Your task to perform on an android device: turn on javascript in the chrome app Image 0: 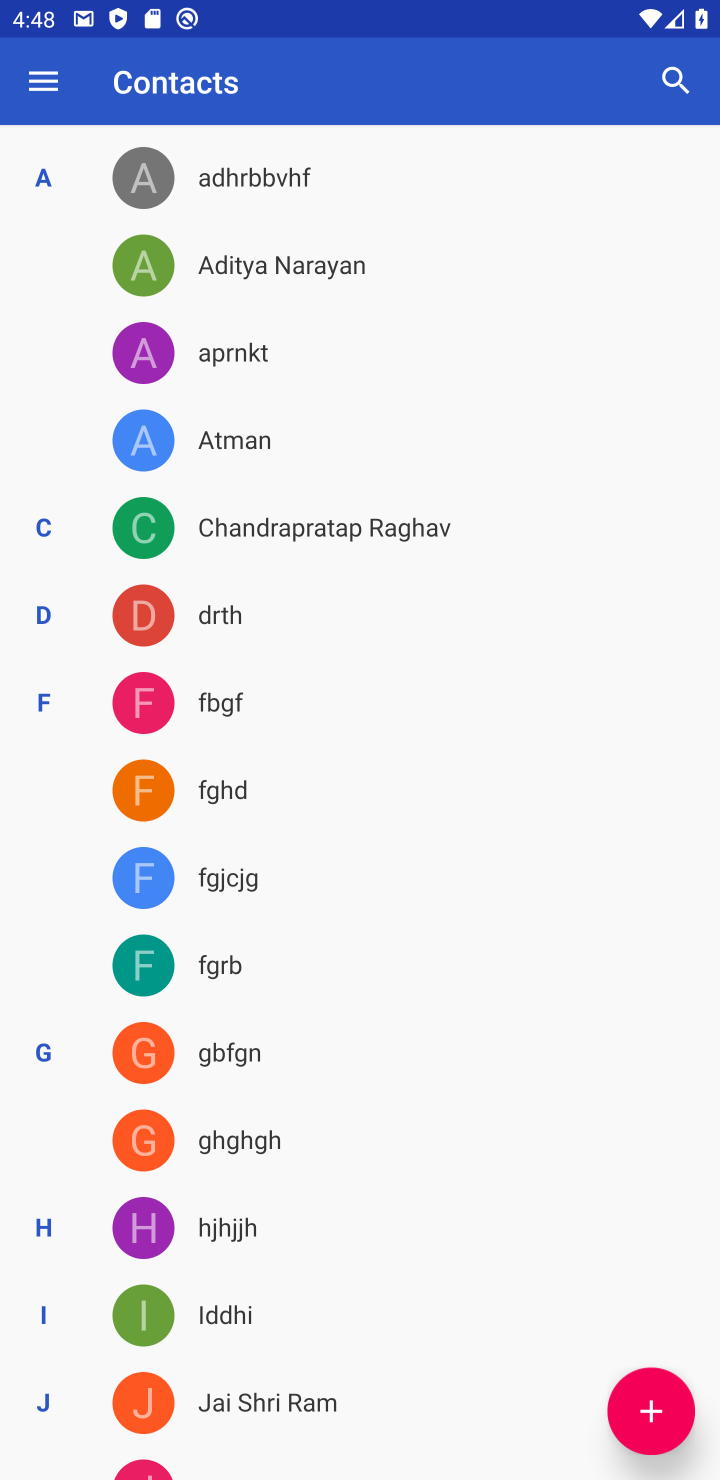
Step 0: press home button
Your task to perform on an android device: turn on javascript in the chrome app Image 1: 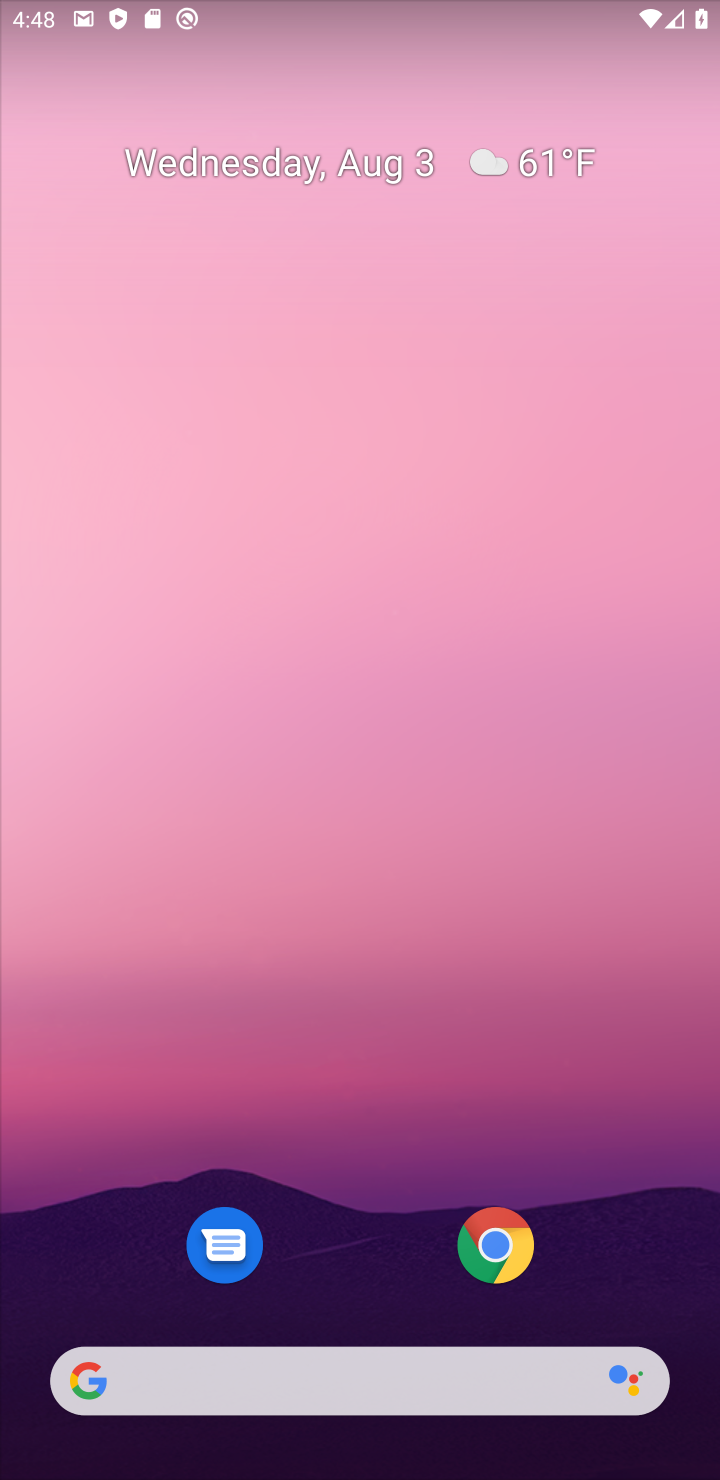
Step 1: click (485, 1229)
Your task to perform on an android device: turn on javascript in the chrome app Image 2: 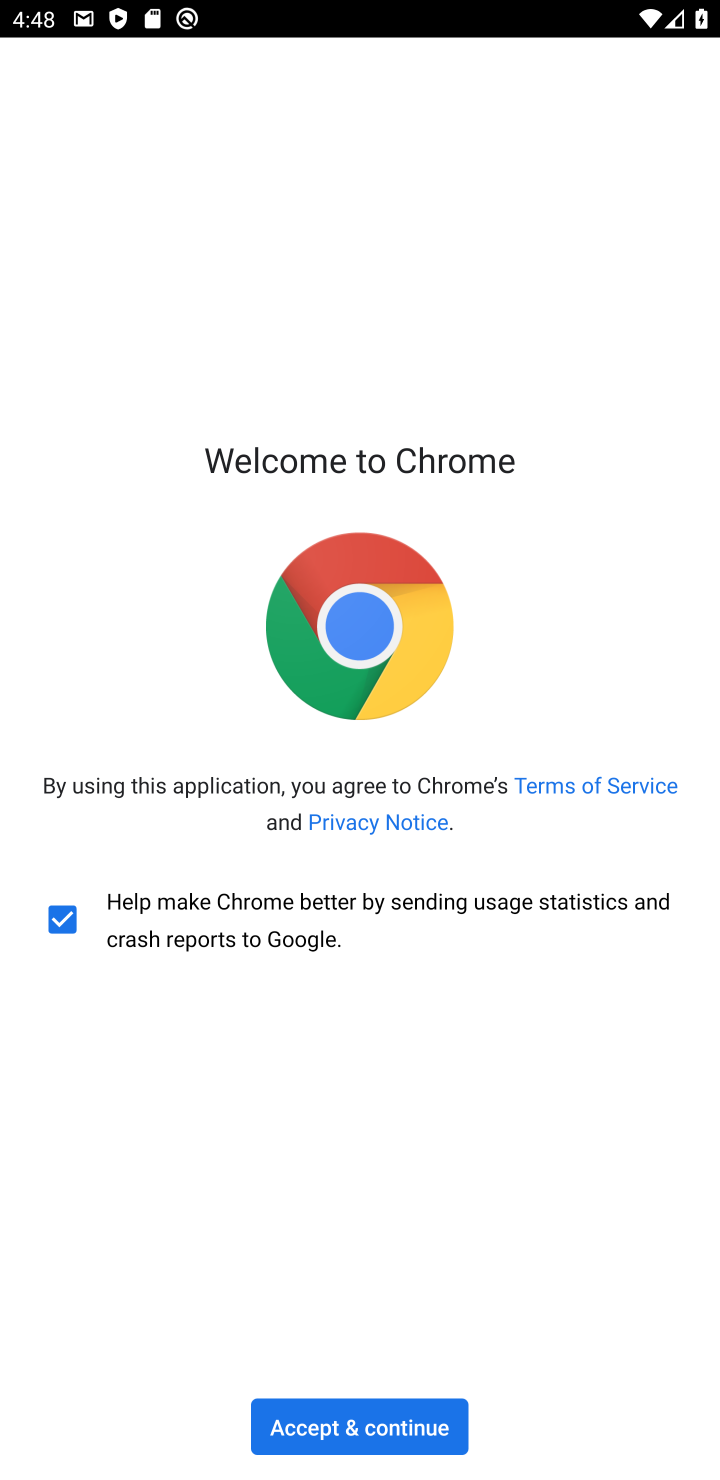
Step 2: click (353, 1426)
Your task to perform on an android device: turn on javascript in the chrome app Image 3: 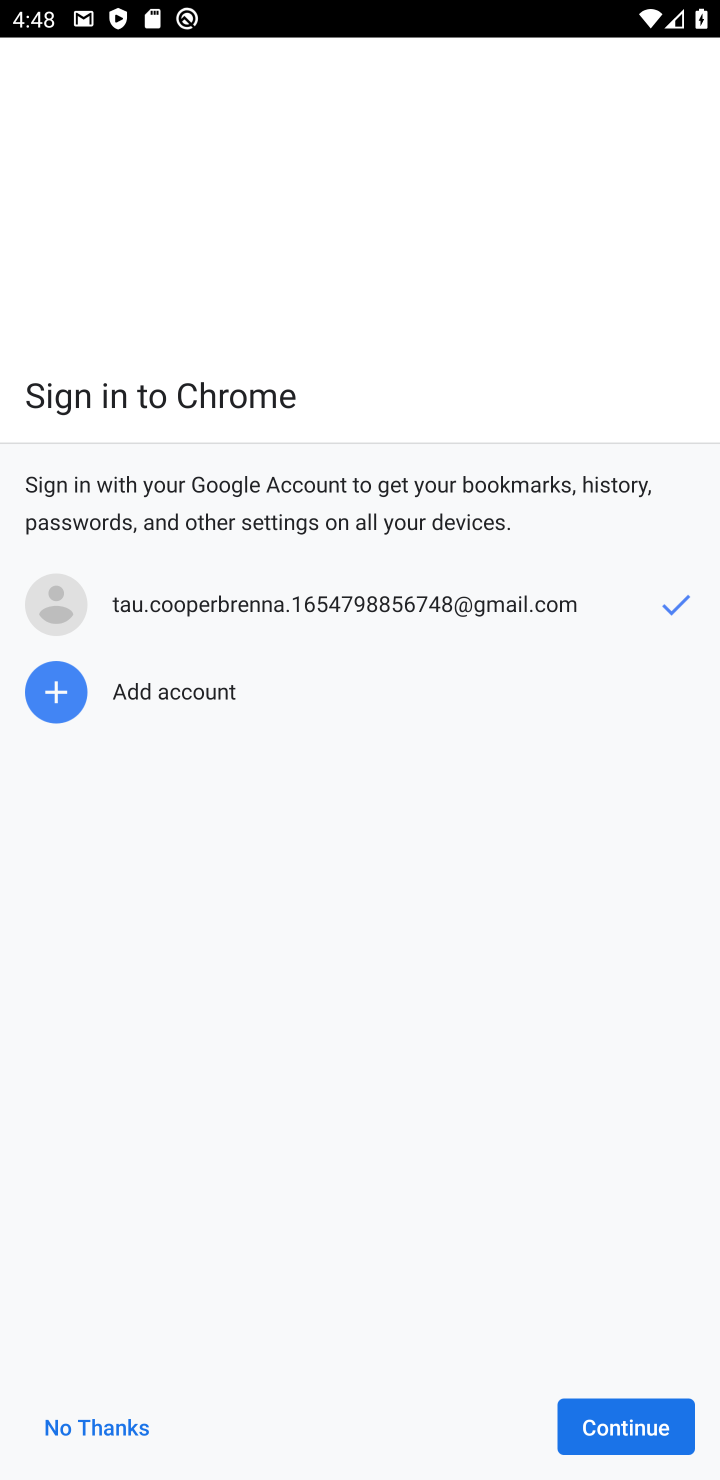
Step 3: click (601, 1416)
Your task to perform on an android device: turn on javascript in the chrome app Image 4: 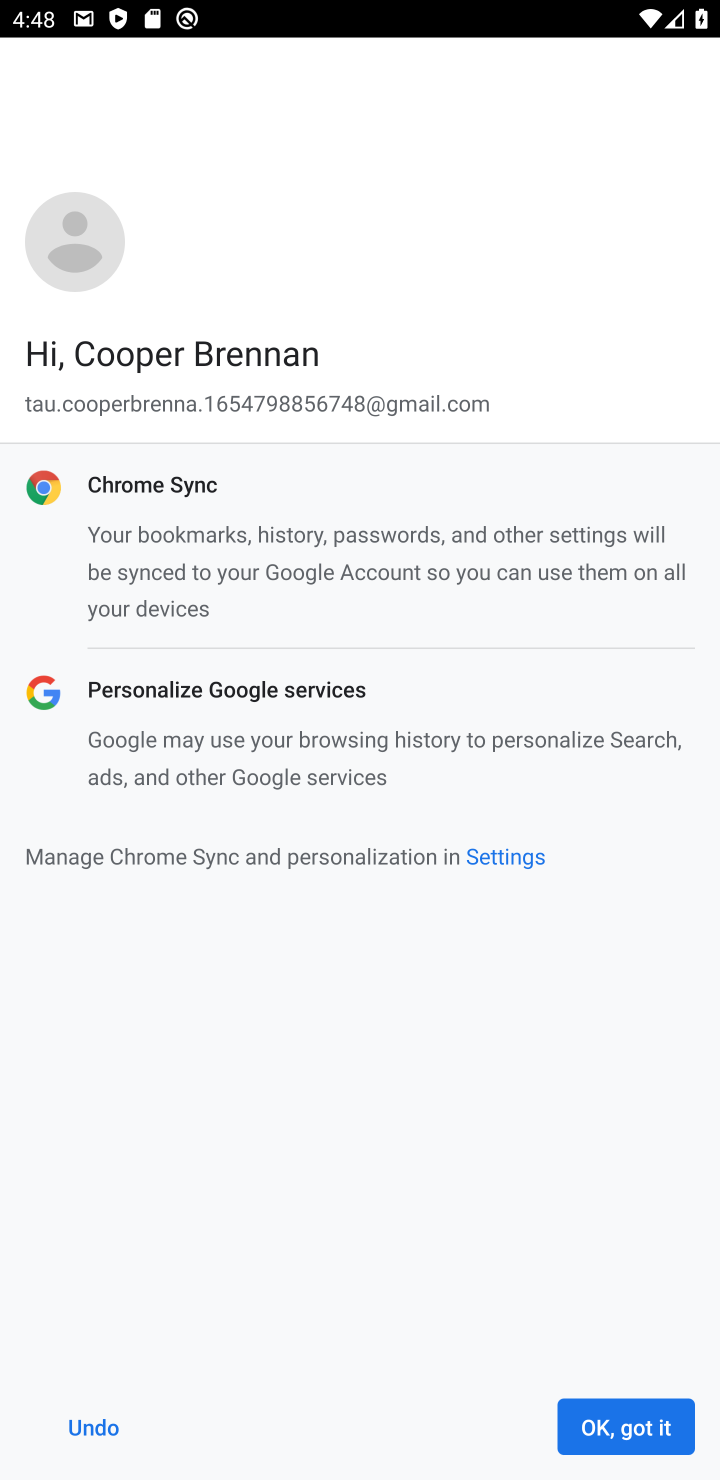
Step 4: click (602, 1418)
Your task to perform on an android device: turn on javascript in the chrome app Image 5: 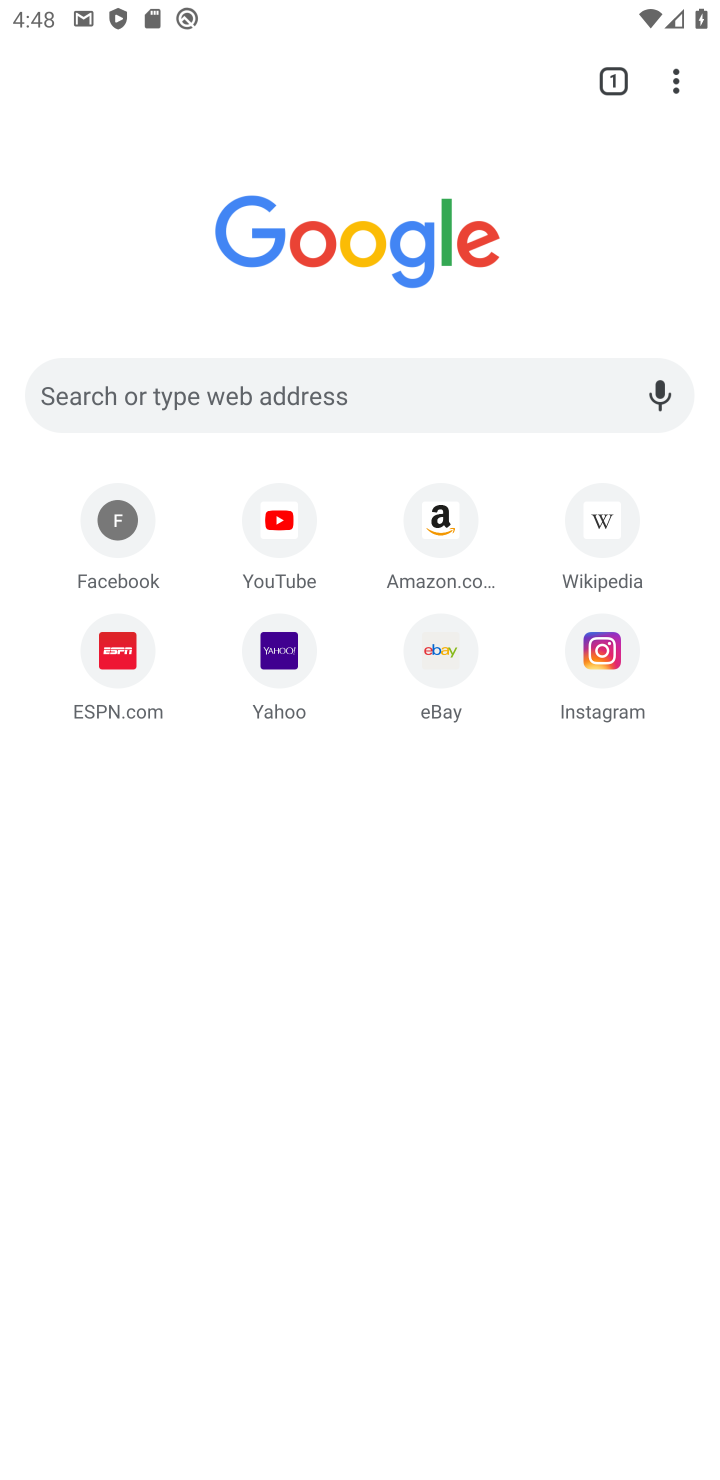
Step 5: drag from (659, 81) to (432, 689)
Your task to perform on an android device: turn on javascript in the chrome app Image 6: 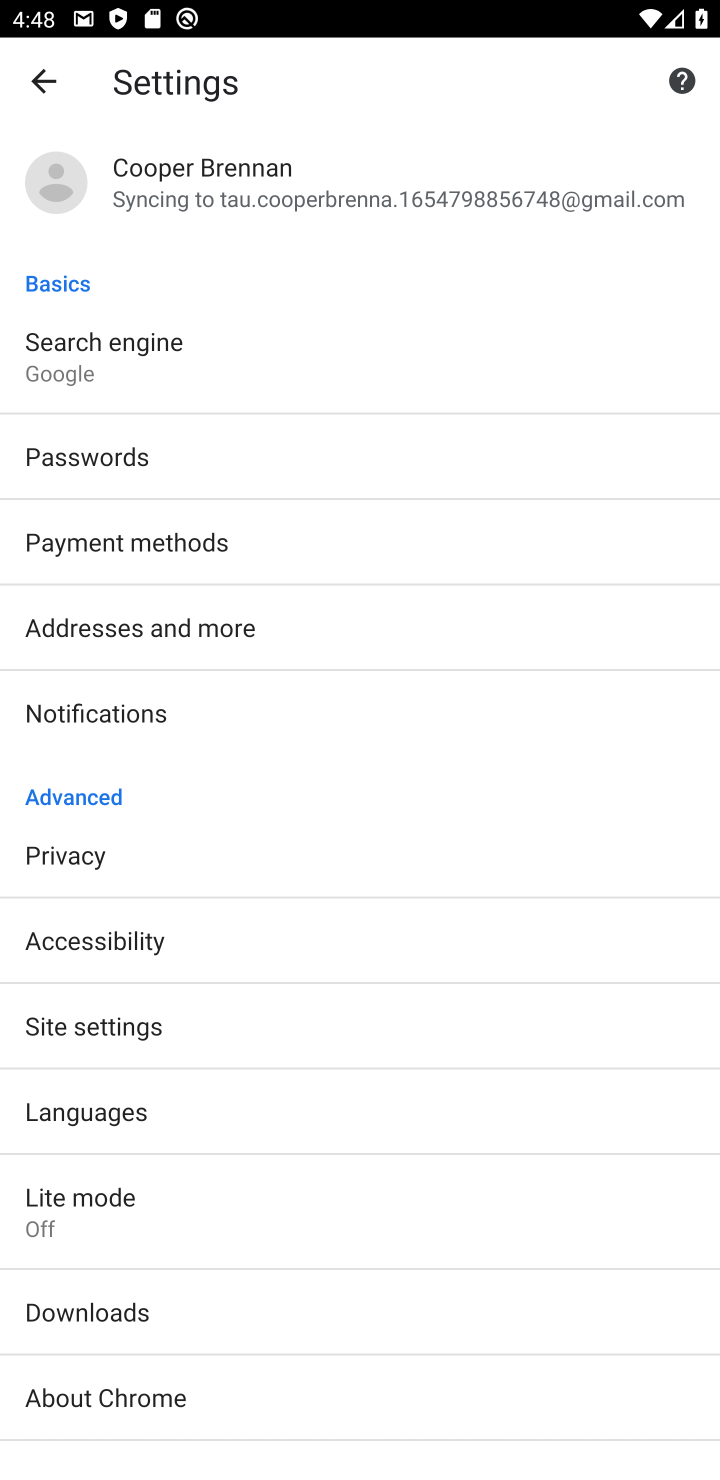
Step 6: click (208, 993)
Your task to perform on an android device: turn on javascript in the chrome app Image 7: 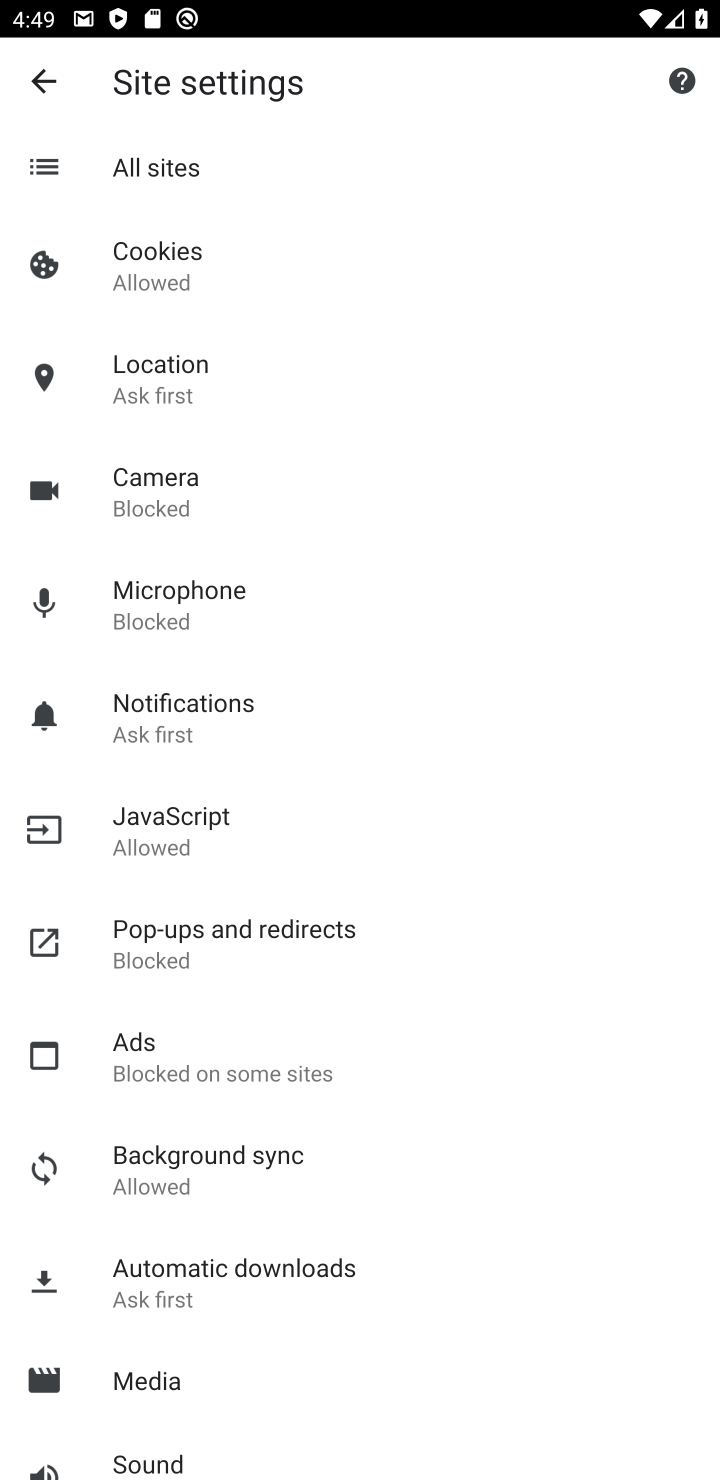
Step 7: click (221, 839)
Your task to perform on an android device: turn on javascript in the chrome app Image 8: 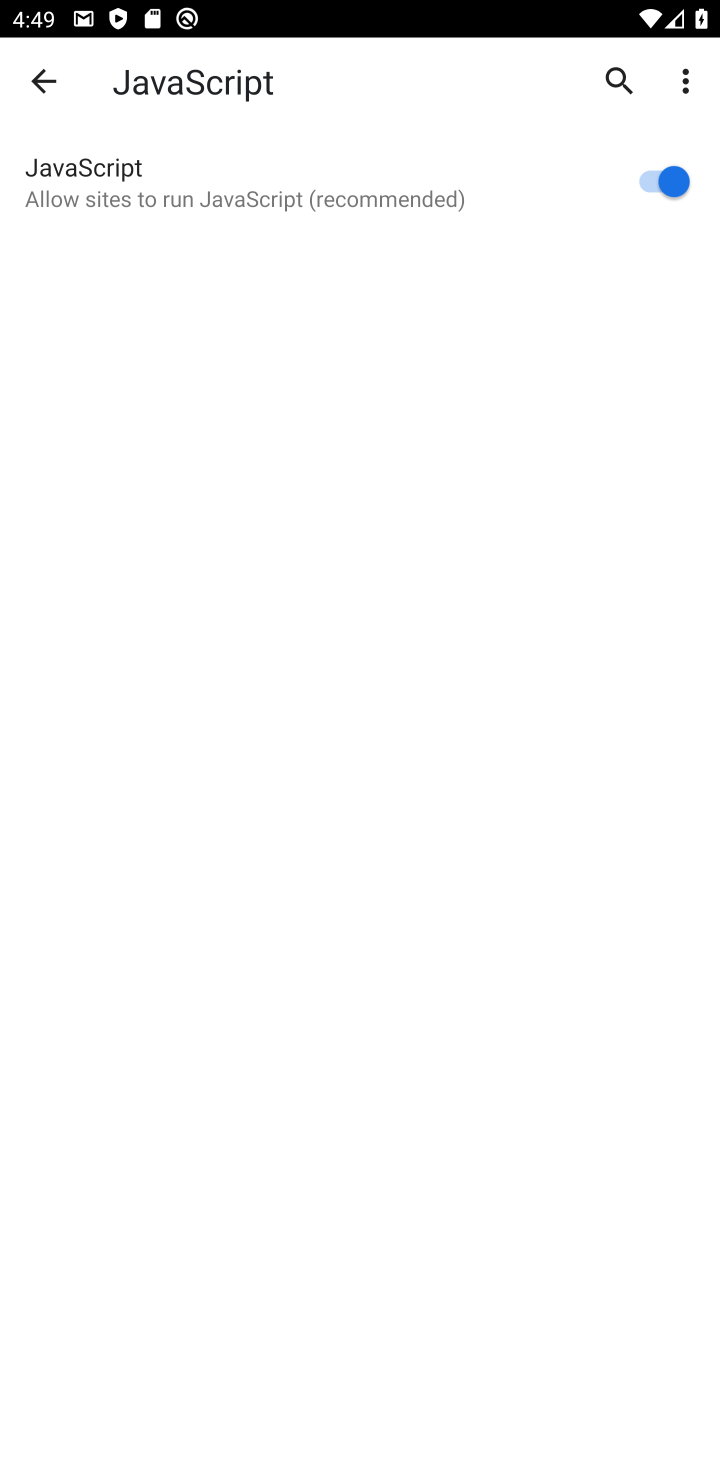
Step 8: task complete